Your task to perform on an android device: Go to Maps Image 0: 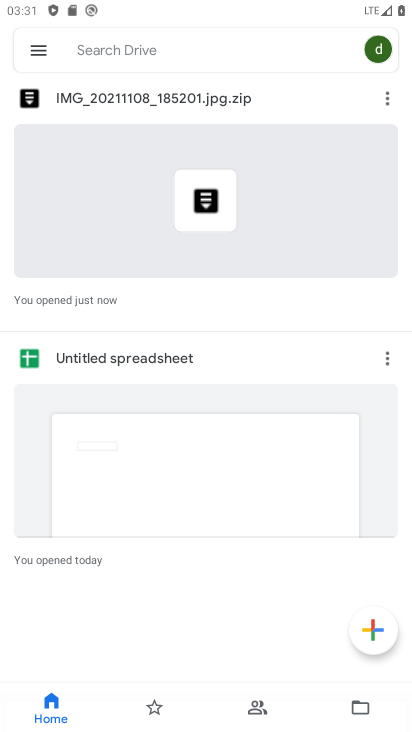
Step 0: press home button
Your task to perform on an android device: Go to Maps Image 1: 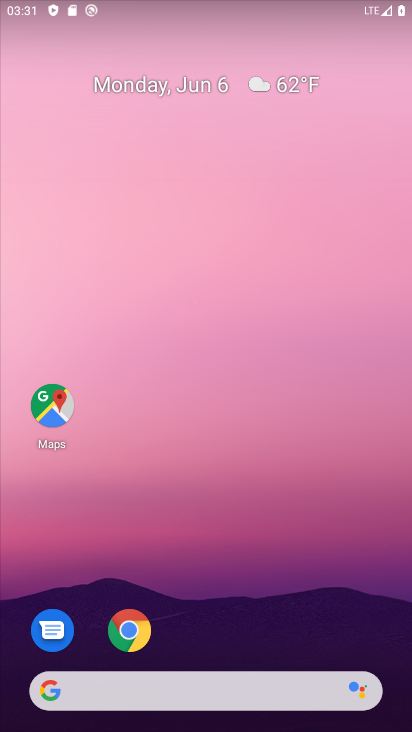
Step 1: click (37, 398)
Your task to perform on an android device: Go to Maps Image 2: 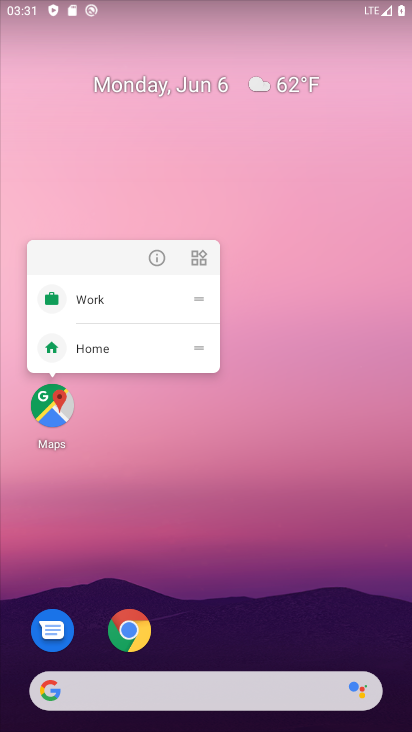
Step 2: click (37, 398)
Your task to perform on an android device: Go to Maps Image 3: 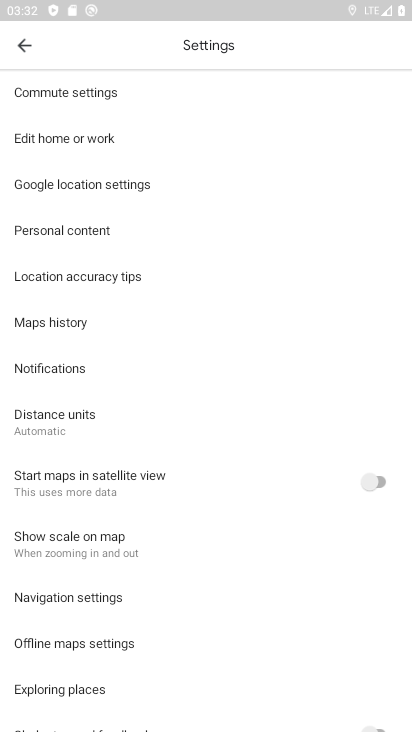
Step 3: task complete